Your task to perform on an android device: Search for vegetarian restaurants on Maps Image 0: 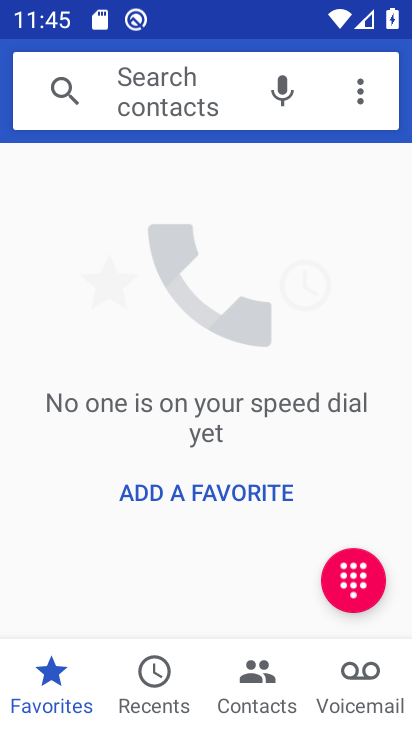
Step 0: press home button
Your task to perform on an android device: Search for vegetarian restaurants on Maps Image 1: 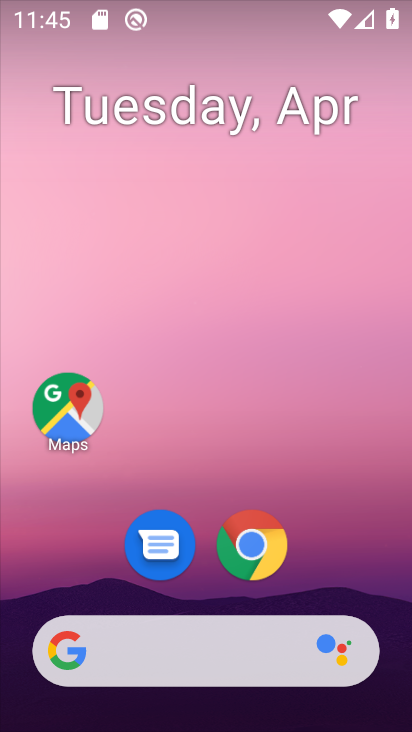
Step 1: drag from (401, 501) to (404, 19)
Your task to perform on an android device: Search for vegetarian restaurants on Maps Image 2: 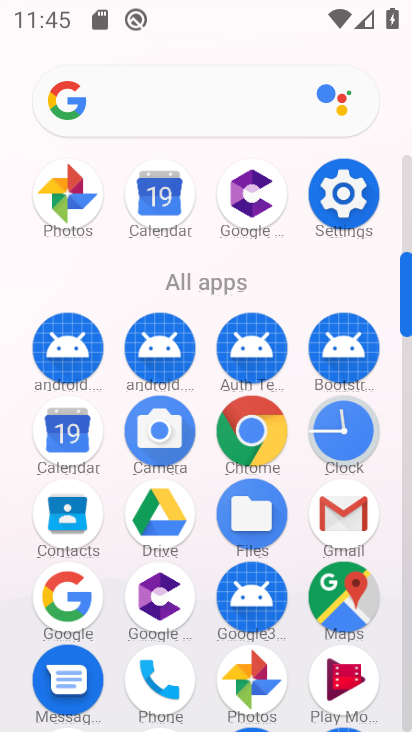
Step 2: click (356, 598)
Your task to perform on an android device: Search for vegetarian restaurants on Maps Image 3: 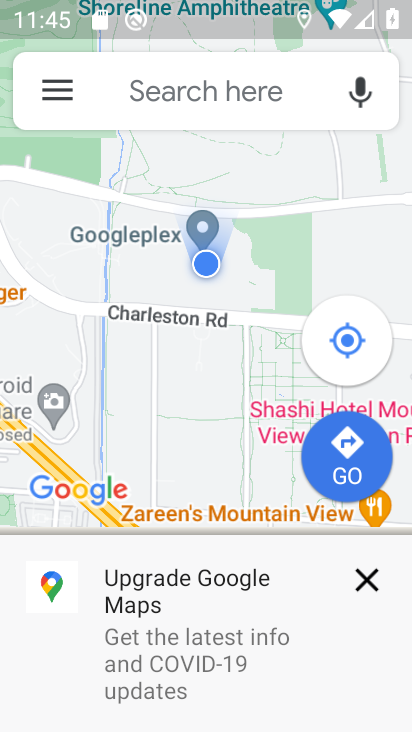
Step 3: click (201, 89)
Your task to perform on an android device: Search for vegetarian restaurants on Maps Image 4: 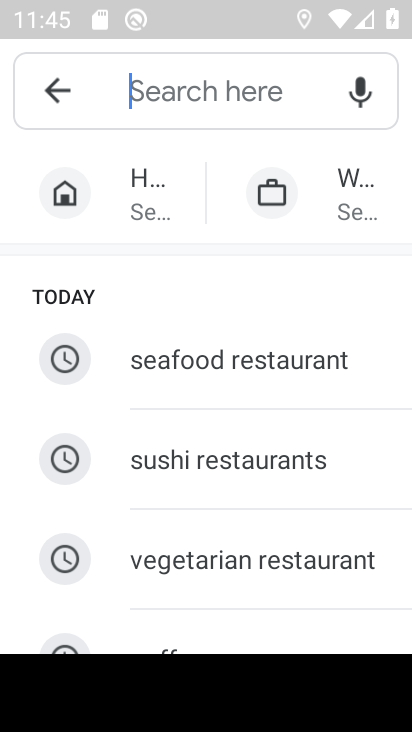
Step 4: click (244, 566)
Your task to perform on an android device: Search for vegetarian restaurants on Maps Image 5: 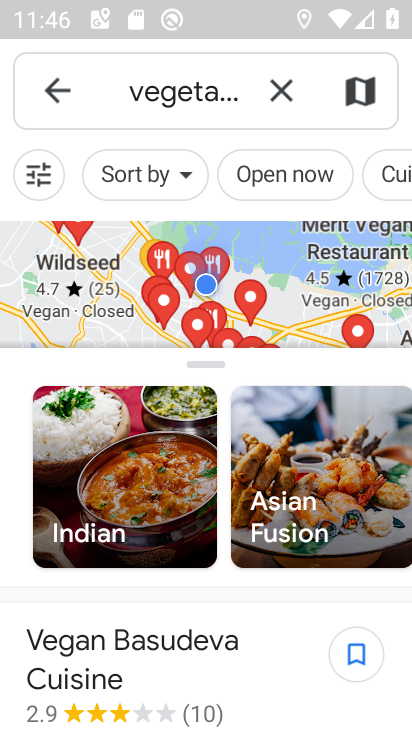
Step 5: task complete